Your task to perform on an android device: What's the news this week? Image 0: 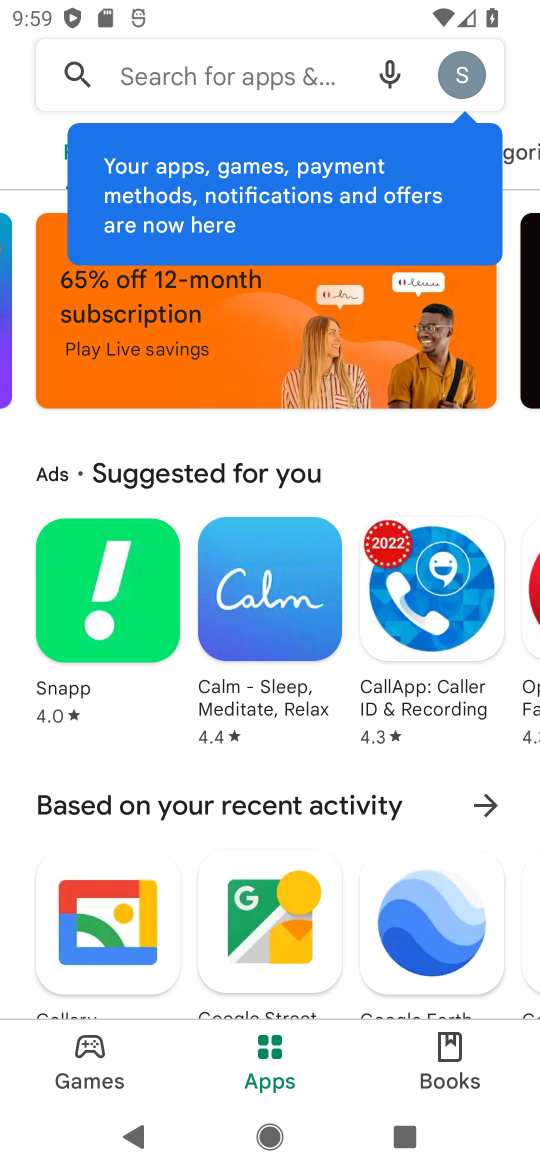
Step 0: task complete